Your task to perform on an android device: Show me the alarms in the clock app Image 0: 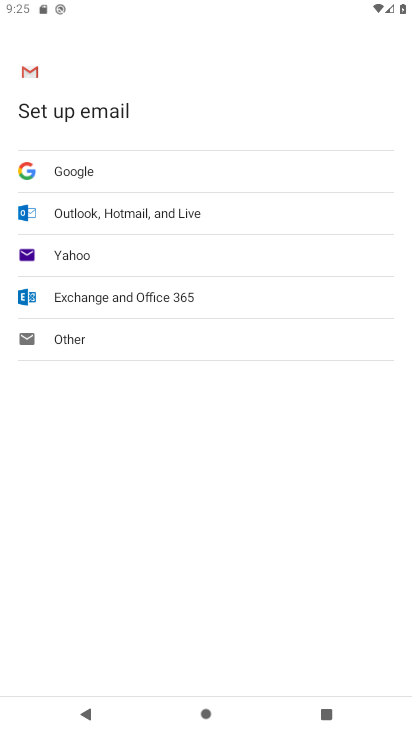
Step 0: press home button
Your task to perform on an android device: Show me the alarms in the clock app Image 1: 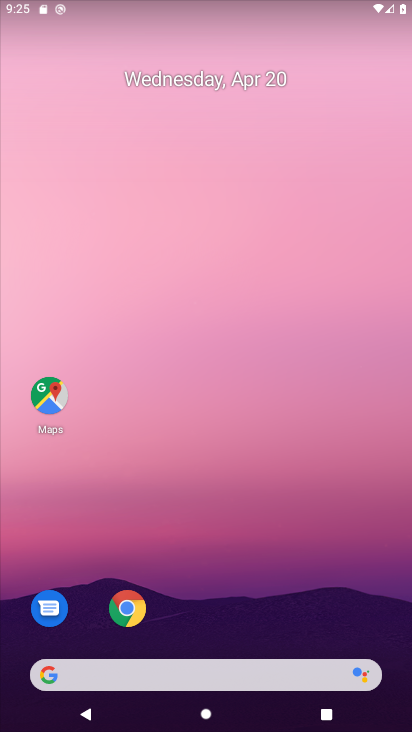
Step 1: drag from (186, 642) to (312, 10)
Your task to perform on an android device: Show me the alarms in the clock app Image 2: 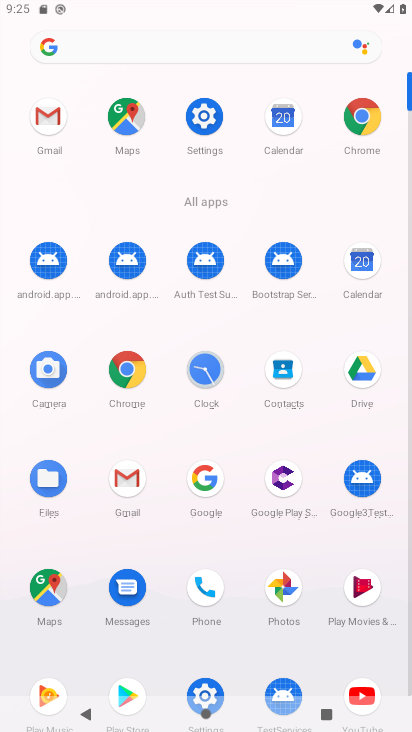
Step 2: click (201, 376)
Your task to perform on an android device: Show me the alarms in the clock app Image 3: 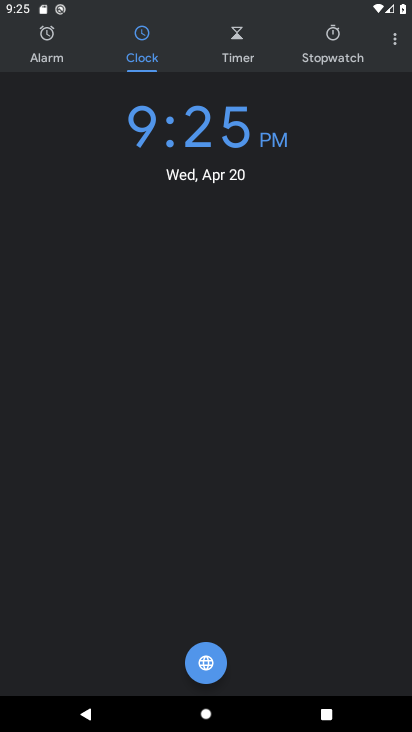
Step 3: click (45, 52)
Your task to perform on an android device: Show me the alarms in the clock app Image 4: 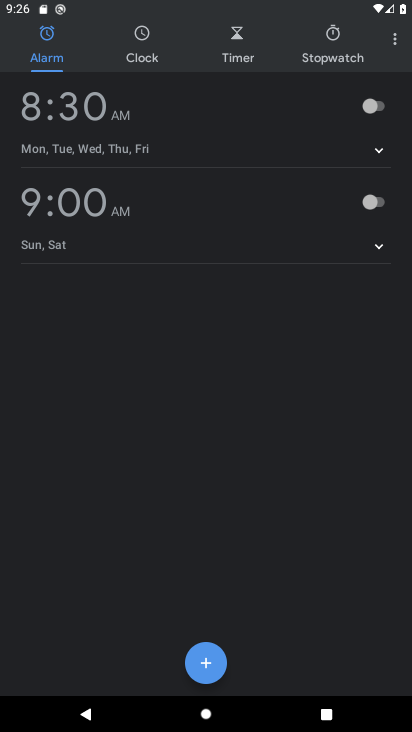
Step 4: task complete